Your task to perform on an android device: change keyboard looks Image 0: 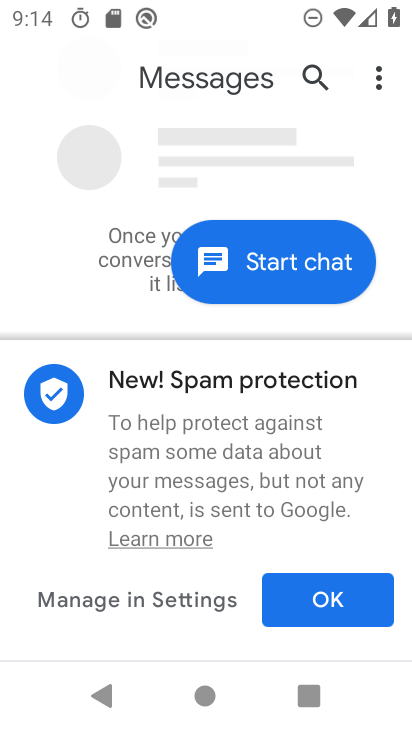
Step 0: press home button
Your task to perform on an android device: change keyboard looks Image 1: 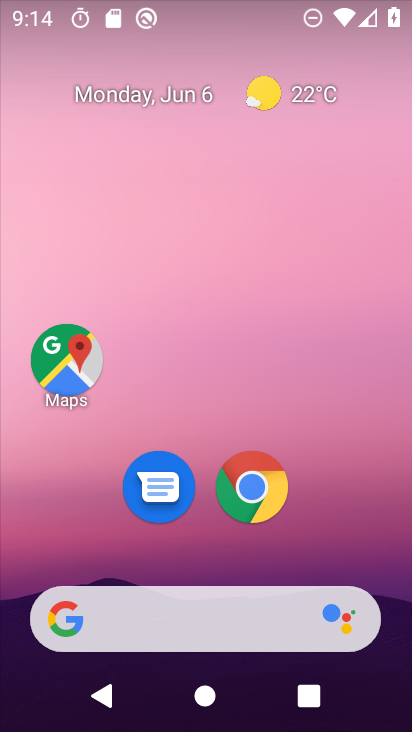
Step 1: drag from (391, 559) to (216, 67)
Your task to perform on an android device: change keyboard looks Image 2: 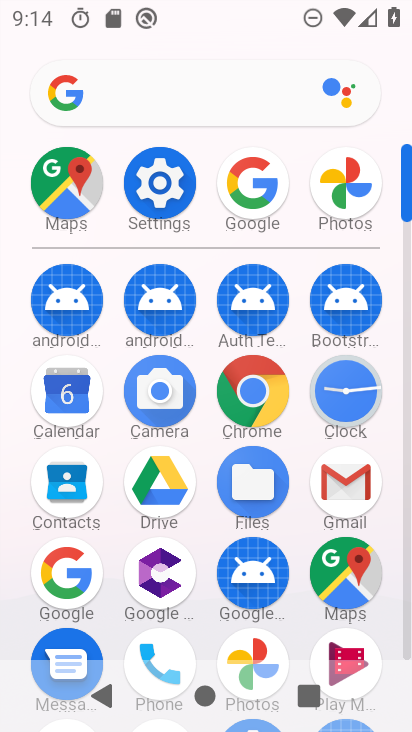
Step 2: click (151, 190)
Your task to perform on an android device: change keyboard looks Image 3: 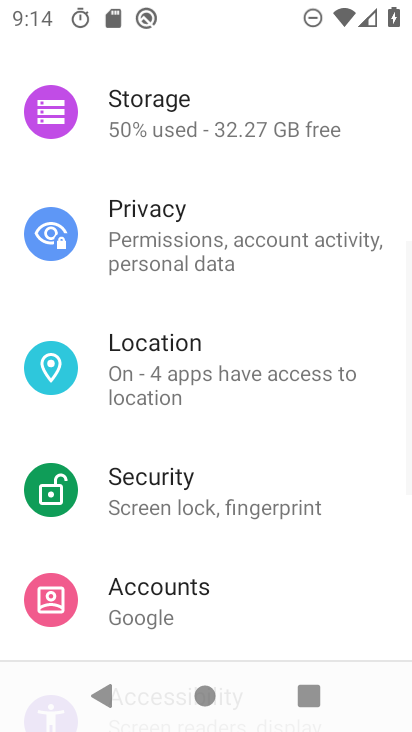
Step 3: drag from (224, 588) to (201, 127)
Your task to perform on an android device: change keyboard looks Image 4: 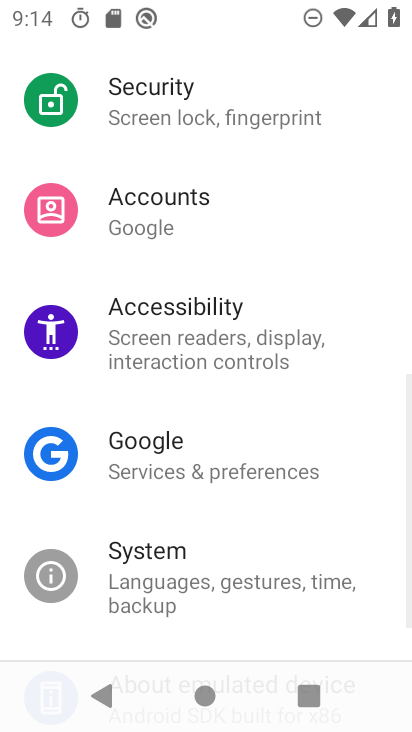
Step 4: drag from (152, 613) to (165, 107)
Your task to perform on an android device: change keyboard looks Image 5: 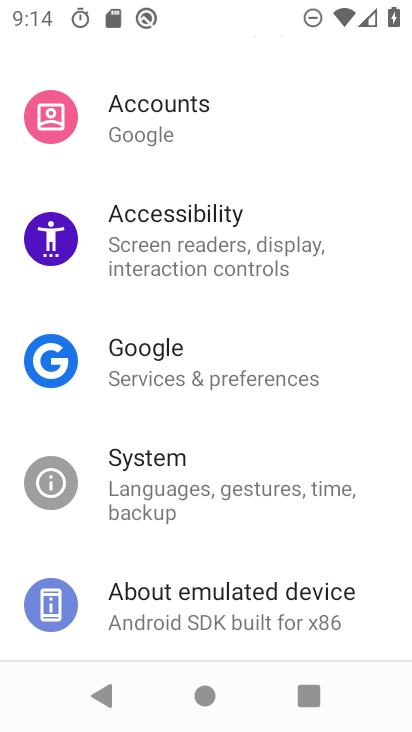
Step 5: click (230, 620)
Your task to perform on an android device: change keyboard looks Image 6: 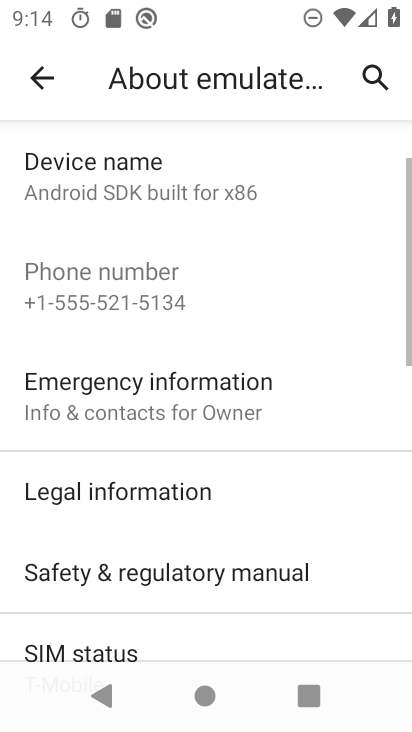
Step 6: press back button
Your task to perform on an android device: change keyboard looks Image 7: 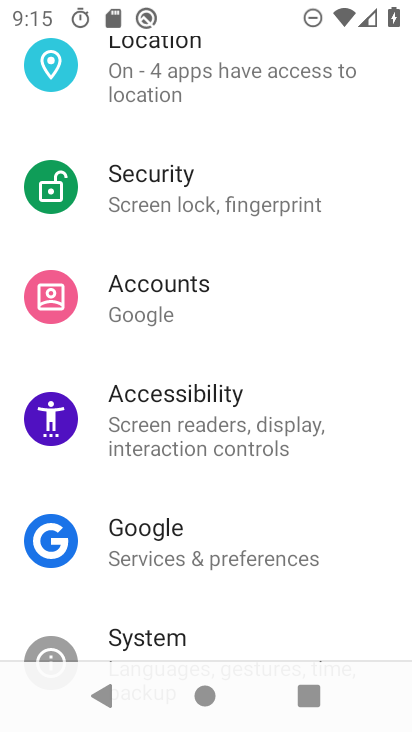
Step 7: click (177, 630)
Your task to perform on an android device: change keyboard looks Image 8: 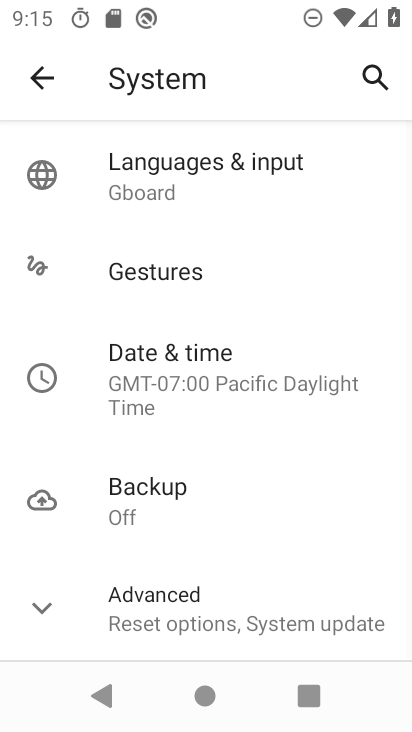
Step 8: click (199, 178)
Your task to perform on an android device: change keyboard looks Image 9: 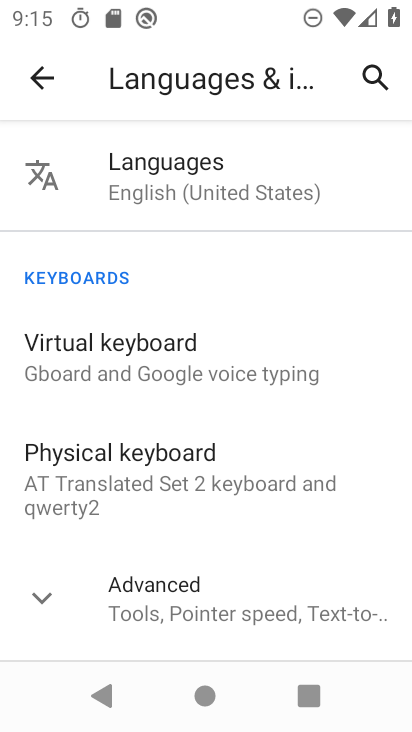
Step 9: click (104, 337)
Your task to perform on an android device: change keyboard looks Image 10: 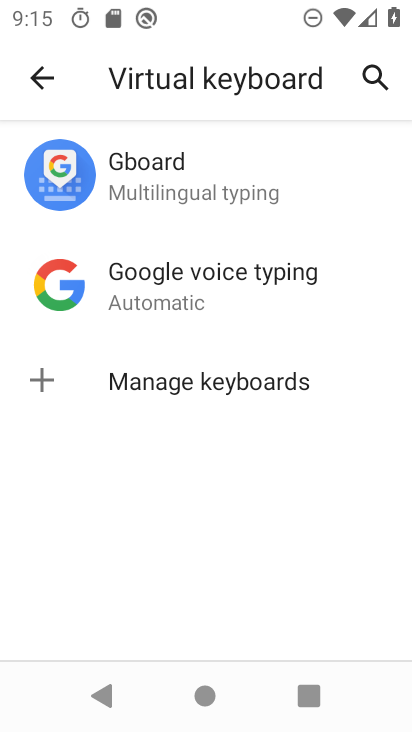
Step 10: click (164, 189)
Your task to perform on an android device: change keyboard looks Image 11: 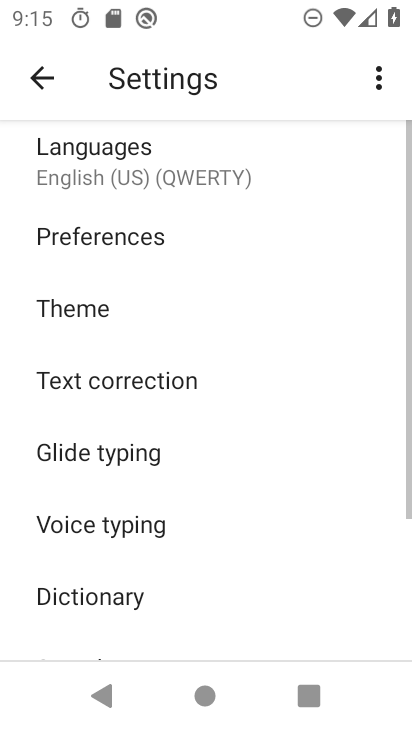
Step 11: click (77, 315)
Your task to perform on an android device: change keyboard looks Image 12: 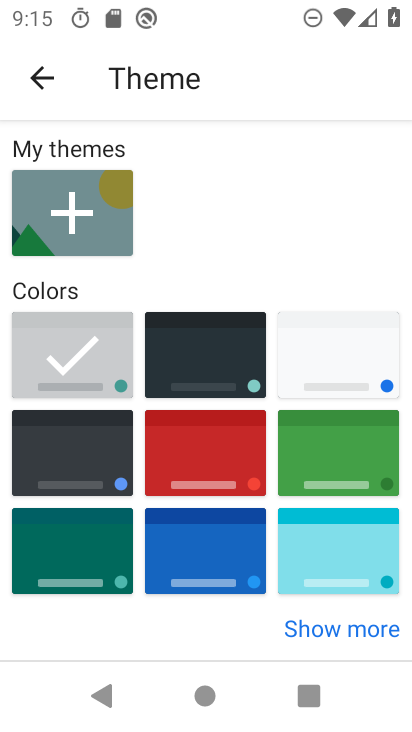
Step 12: click (194, 342)
Your task to perform on an android device: change keyboard looks Image 13: 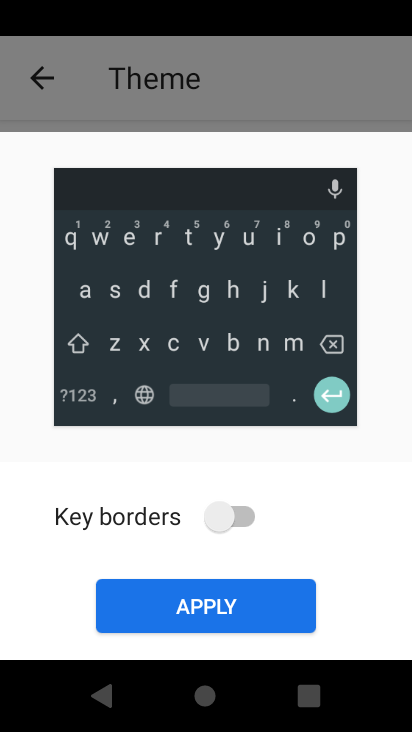
Step 13: click (217, 587)
Your task to perform on an android device: change keyboard looks Image 14: 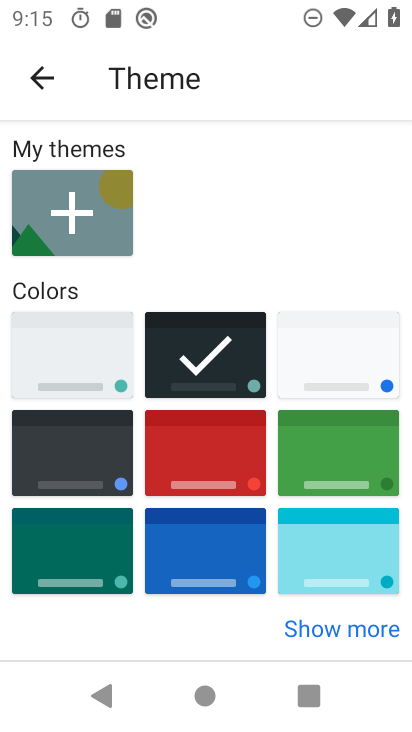
Step 14: task complete